Your task to perform on an android device: Go to notification settings Image 0: 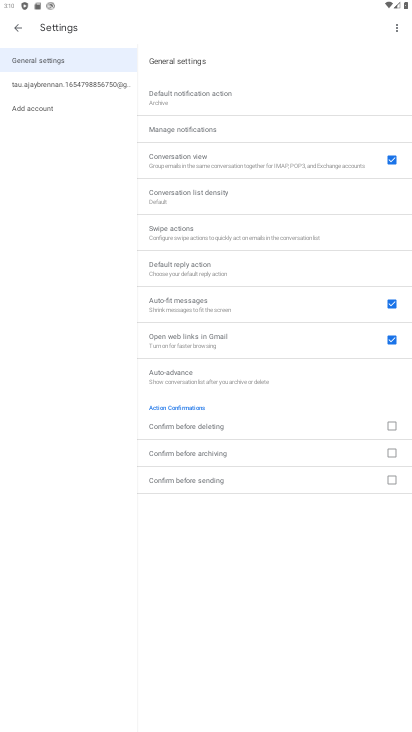
Step 0: press home button
Your task to perform on an android device: Go to notification settings Image 1: 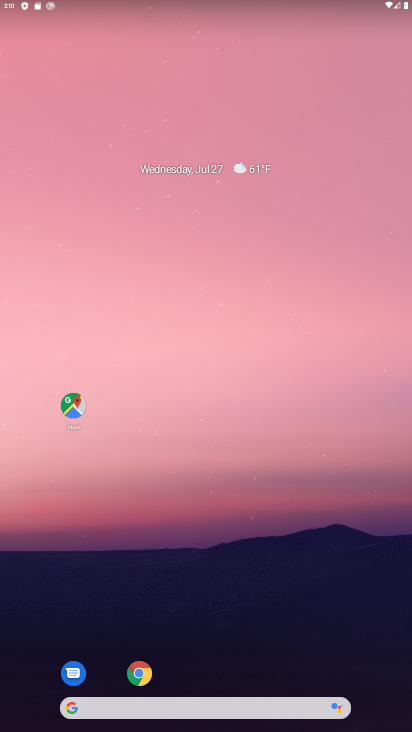
Step 1: drag from (220, 667) to (240, 221)
Your task to perform on an android device: Go to notification settings Image 2: 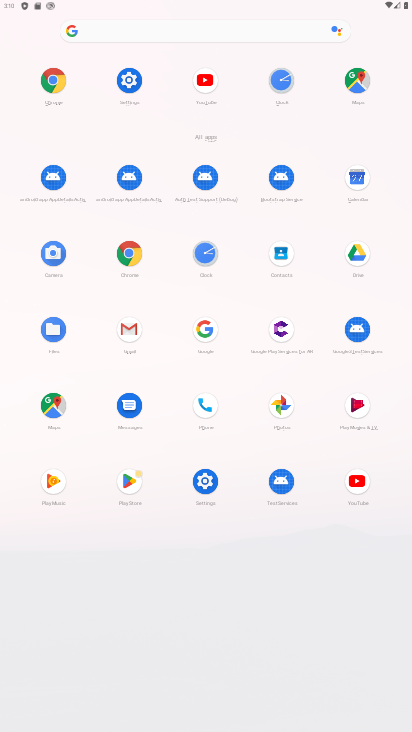
Step 2: click (196, 475)
Your task to perform on an android device: Go to notification settings Image 3: 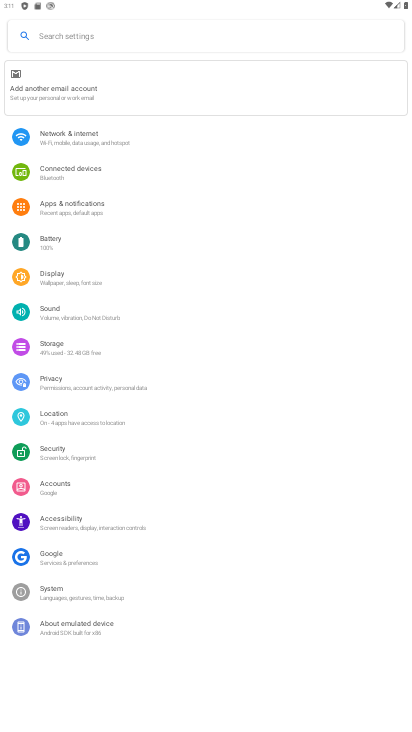
Step 3: click (171, 205)
Your task to perform on an android device: Go to notification settings Image 4: 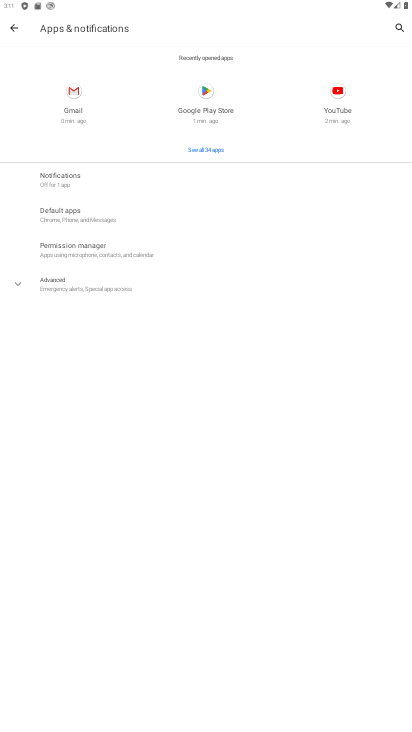
Step 4: click (109, 177)
Your task to perform on an android device: Go to notification settings Image 5: 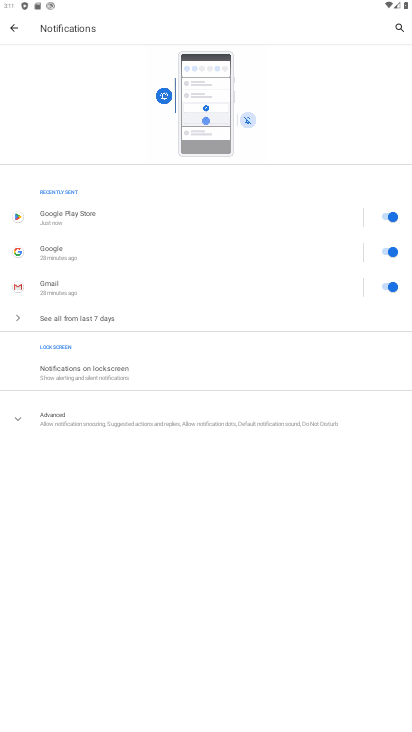
Step 5: task complete